Your task to perform on an android device: Search for seafood restaurants on Google Maps Image 0: 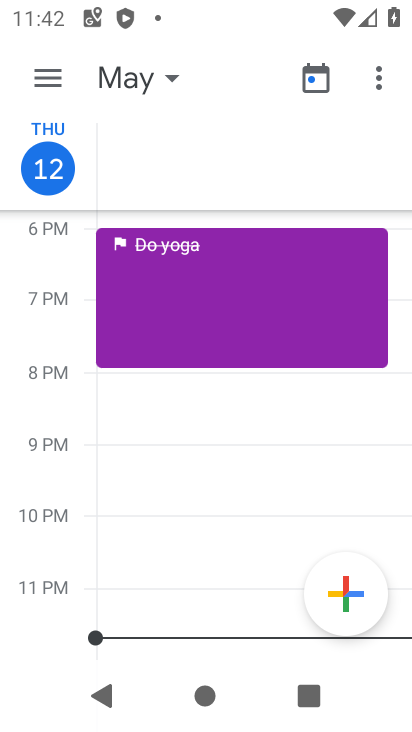
Step 0: press home button
Your task to perform on an android device: Search for seafood restaurants on Google Maps Image 1: 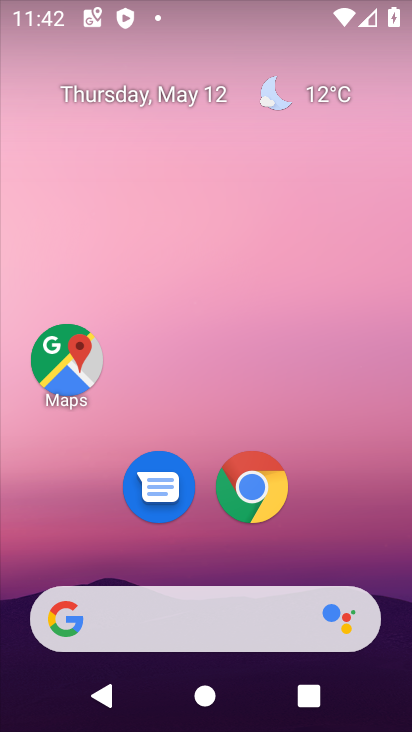
Step 1: click (64, 363)
Your task to perform on an android device: Search for seafood restaurants on Google Maps Image 2: 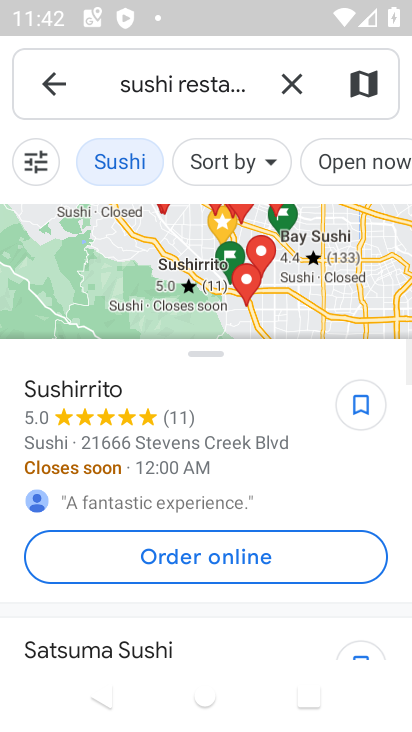
Step 2: click (291, 85)
Your task to perform on an android device: Search for seafood restaurants on Google Maps Image 3: 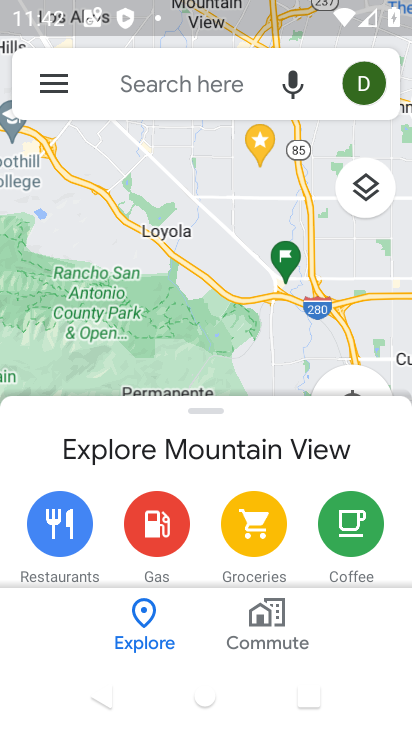
Step 3: click (133, 87)
Your task to perform on an android device: Search for seafood restaurants on Google Maps Image 4: 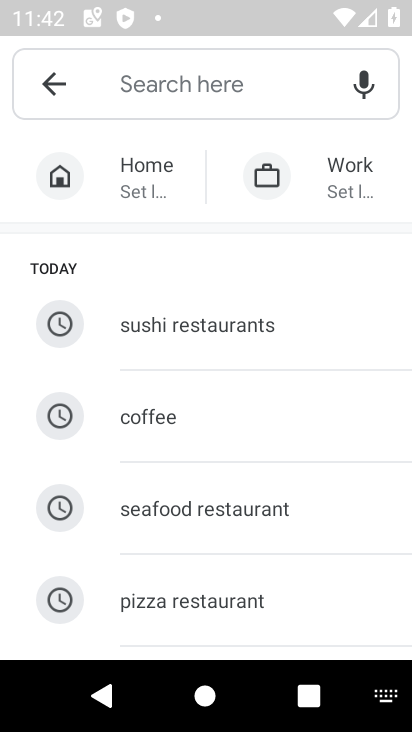
Step 4: type "seafood restaurant"
Your task to perform on an android device: Search for seafood restaurants on Google Maps Image 5: 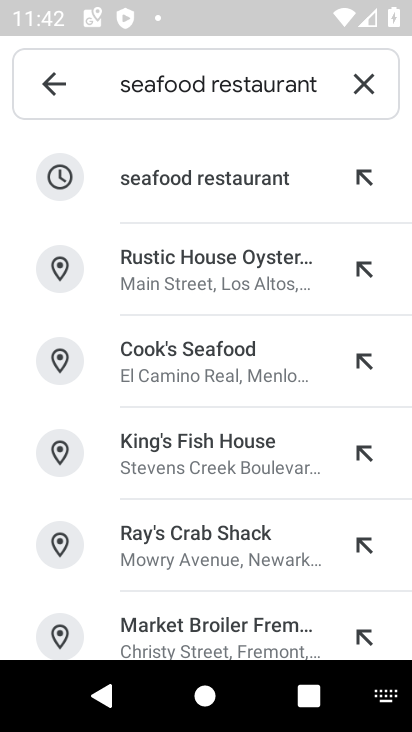
Step 5: click (203, 183)
Your task to perform on an android device: Search for seafood restaurants on Google Maps Image 6: 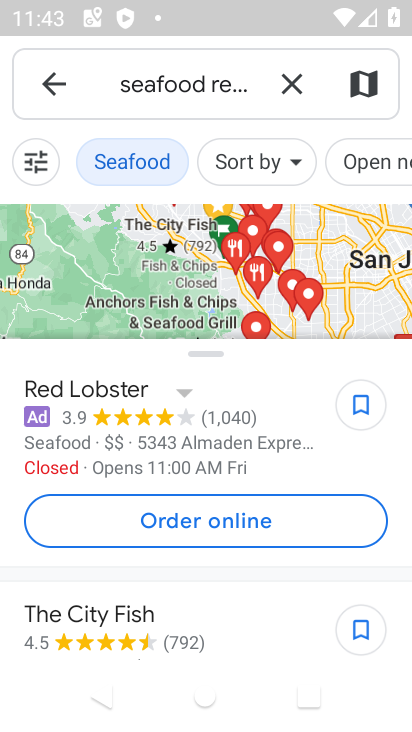
Step 6: task complete